Your task to perform on an android device: turn on showing notifications on the lock screen Image 0: 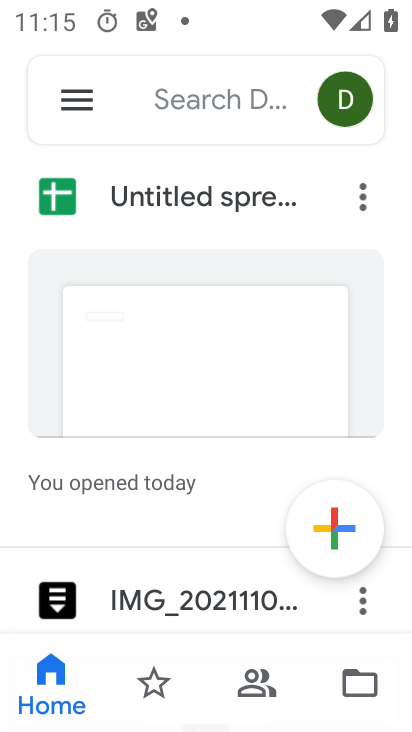
Step 0: drag from (206, 330) to (222, 184)
Your task to perform on an android device: turn on showing notifications on the lock screen Image 1: 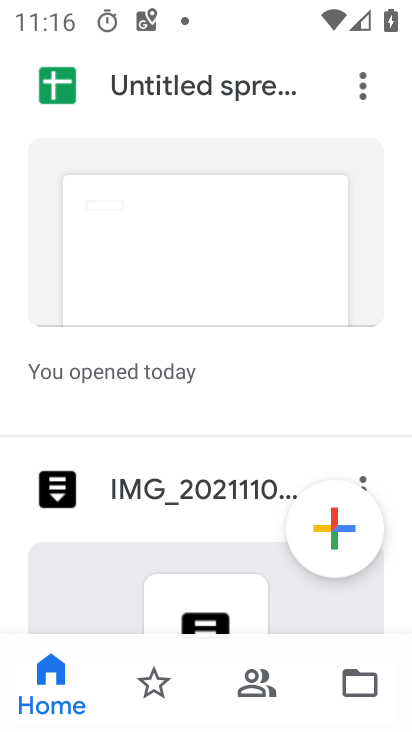
Step 1: press home button
Your task to perform on an android device: turn on showing notifications on the lock screen Image 2: 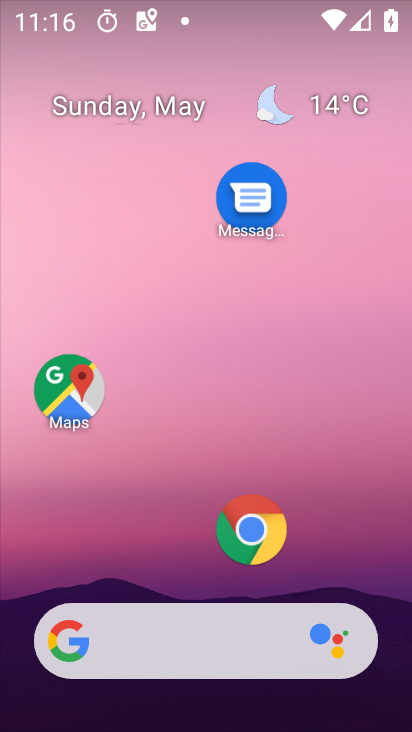
Step 2: drag from (188, 563) to (293, 0)
Your task to perform on an android device: turn on showing notifications on the lock screen Image 3: 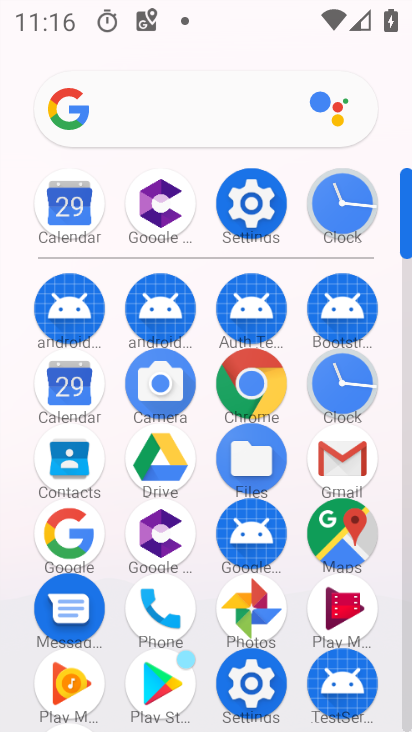
Step 3: click (254, 237)
Your task to perform on an android device: turn on showing notifications on the lock screen Image 4: 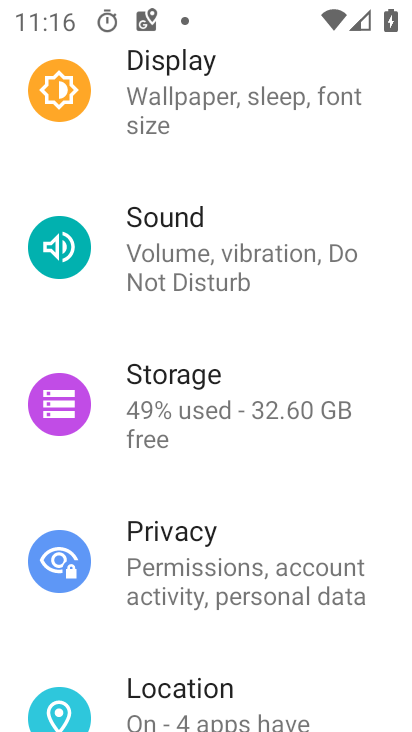
Step 4: drag from (241, 258) to (221, 601)
Your task to perform on an android device: turn on showing notifications on the lock screen Image 5: 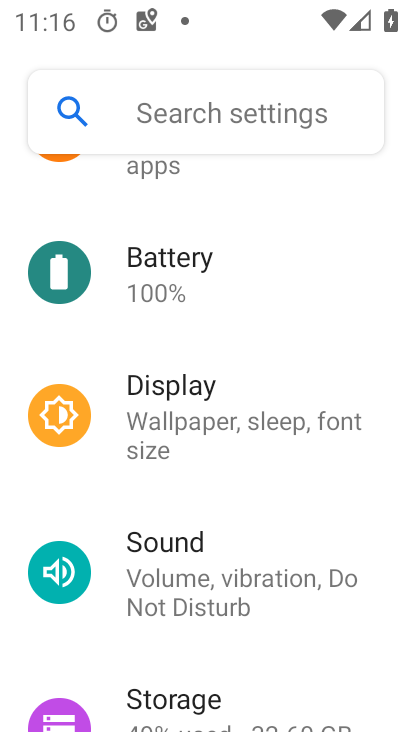
Step 5: drag from (232, 307) to (229, 623)
Your task to perform on an android device: turn on showing notifications on the lock screen Image 6: 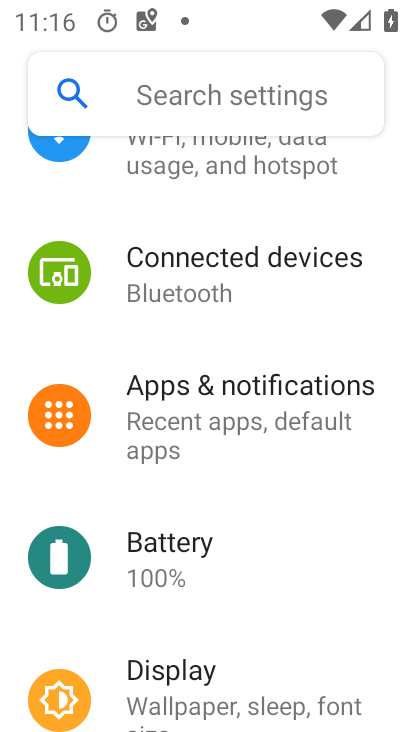
Step 6: click (238, 421)
Your task to perform on an android device: turn on showing notifications on the lock screen Image 7: 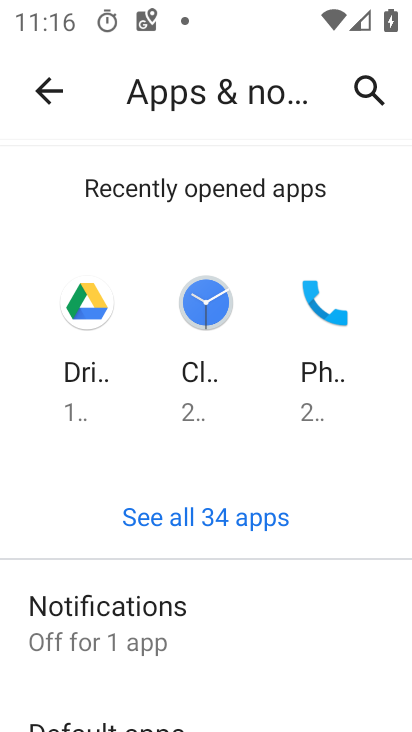
Step 7: drag from (209, 597) to (252, 312)
Your task to perform on an android device: turn on showing notifications on the lock screen Image 8: 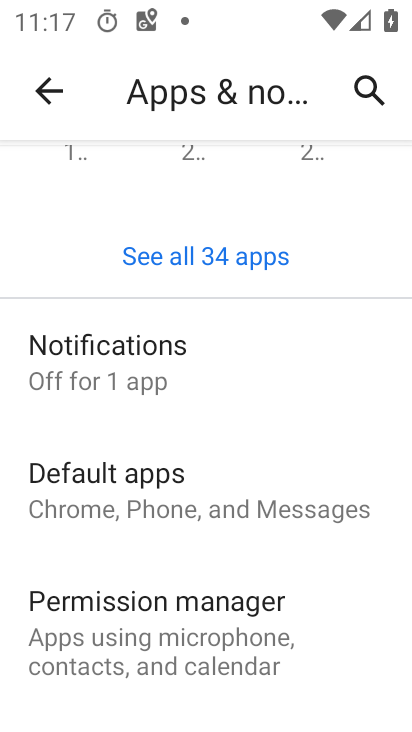
Step 8: click (139, 394)
Your task to perform on an android device: turn on showing notifications on the lock screen Image 9: 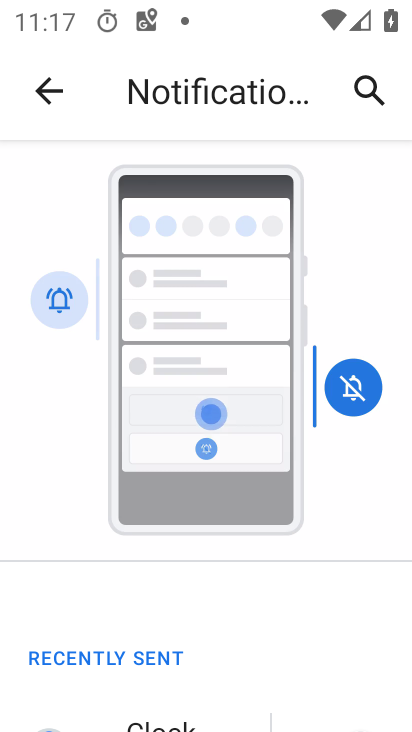
Step 9: drag from (171, 581) to (183, 267)
Your task to perform on an android device: turn on showing notifications on the lock screen Image 10: 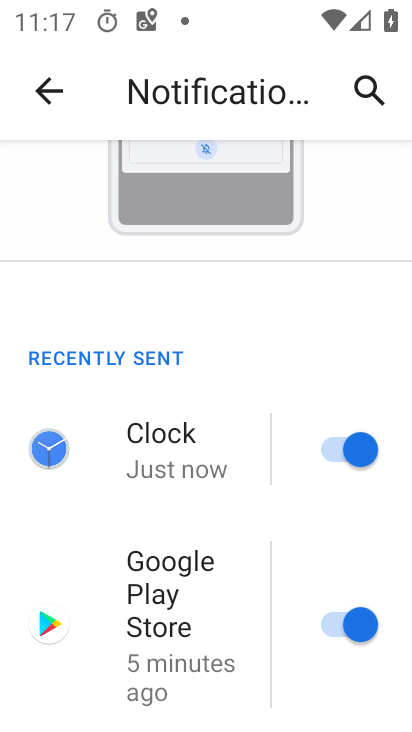
Step 10: drag from (194, 668) to (275, 221)
Your task to perform on an android device: turn on showing notifications on the lock screen Image 11: 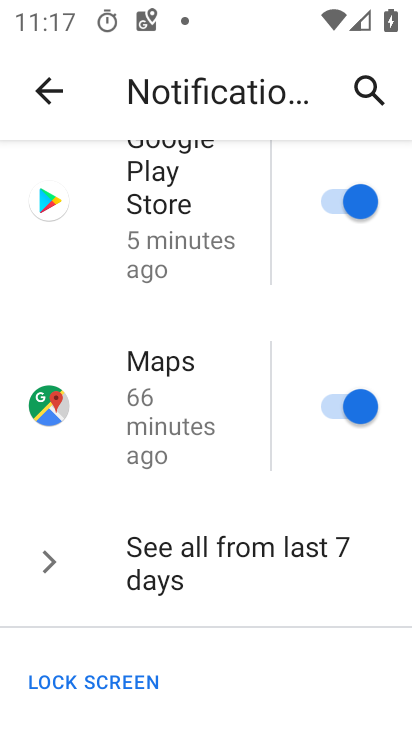
Step 11: drag from (222, 608) to (281, 196)
Your task to perform on an android device: turn on showing notifications on the lock screen Image 12: 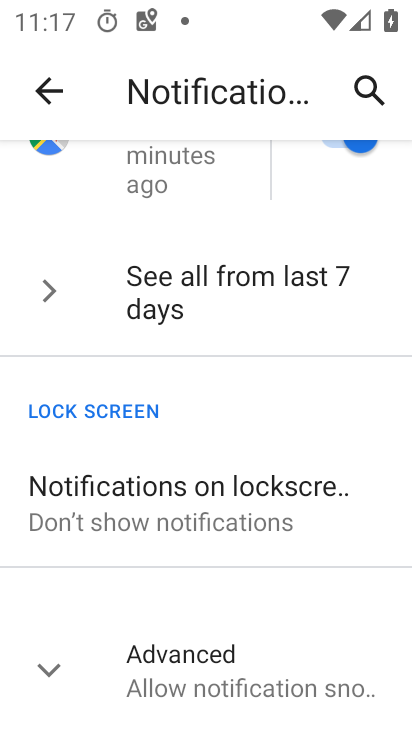
Step 12: click (229, 516)
Your task to perform on an android device: turn on showing notifications on the lock screen Image 13: 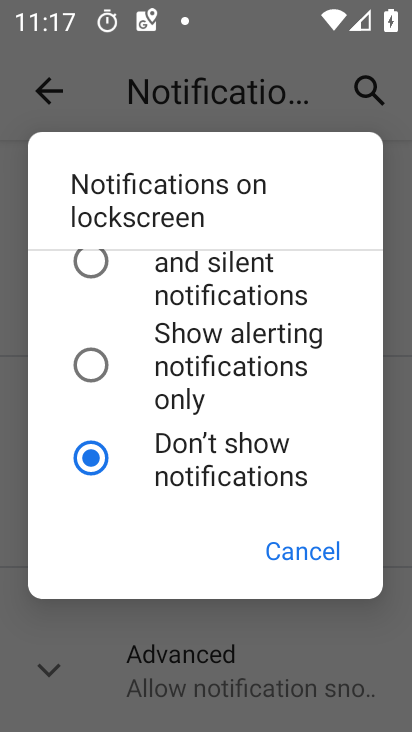
Step 13: click (90, 258)
Your task to perform on an android device: turn on showing notifications on the lock screen Image 14: 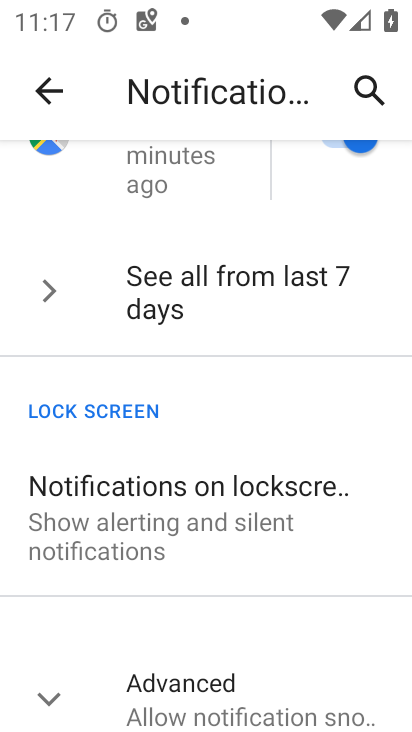
Step 14: task complete